Your task to perform on an android device: toggle data saver in the chrome app Image 0: 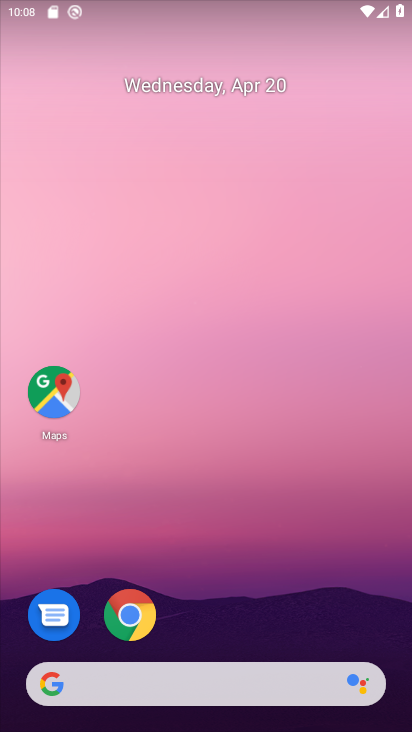
Step 0: drag from (345, 596) to (356, 164)
Your task to perform on an android device: toggle data saver in the chrome app Image 1: 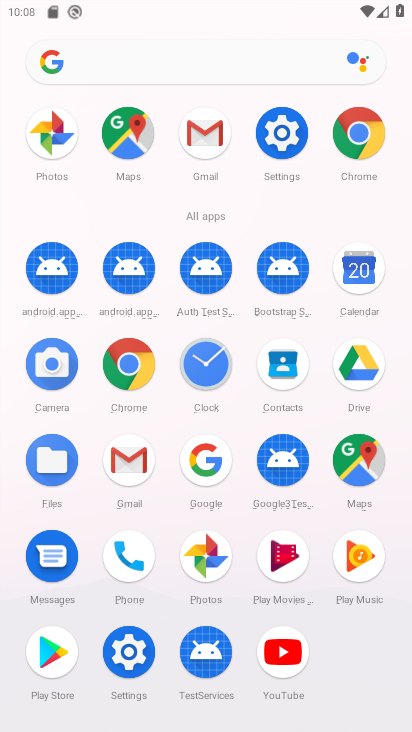
Step 1: click (127, 377)
Your task to perform on an android device: toggle data saver in the chrome app Image 2: 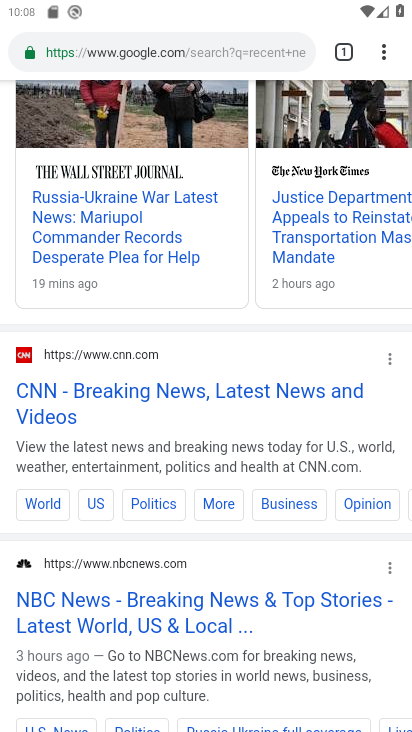
Step 2: drag from (385, 57) to (215, 579)
Your task to perform on an android device: toggle data saver in the chrome app Image 3: 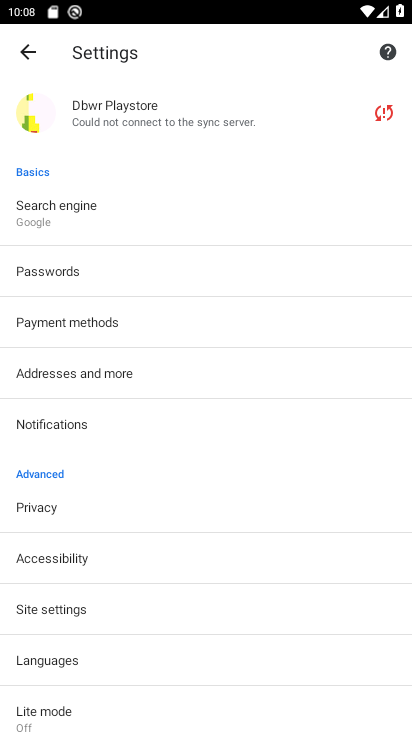
Step 3: drag from (216, 639) to (221, 266)
Your task to perform on an android device: toggle data saver in the chrome app Image 4: 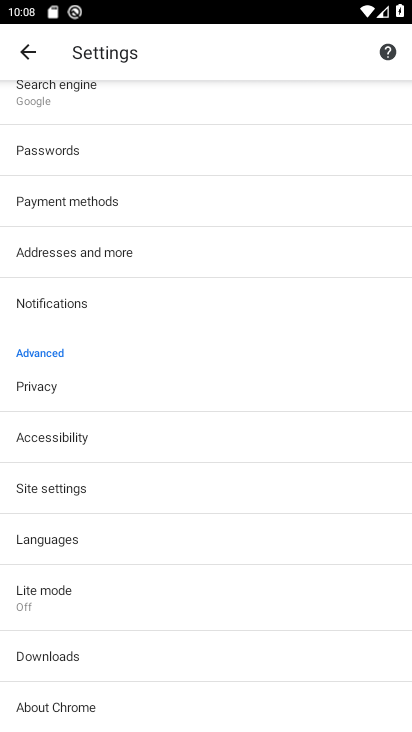
Step 4: click (58, 601)
Your task to perform on an android device: toggle data saver in the chrome app Image 5: 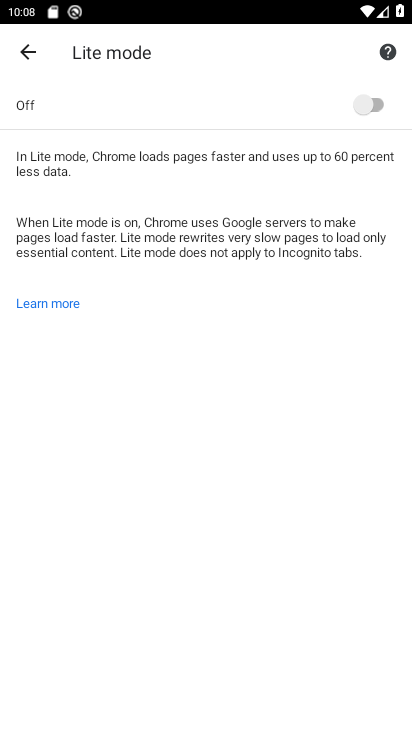
Step 5: click (378, 102)
Your task to perform on an android device: toggle data saver in the chrome app Image 6: 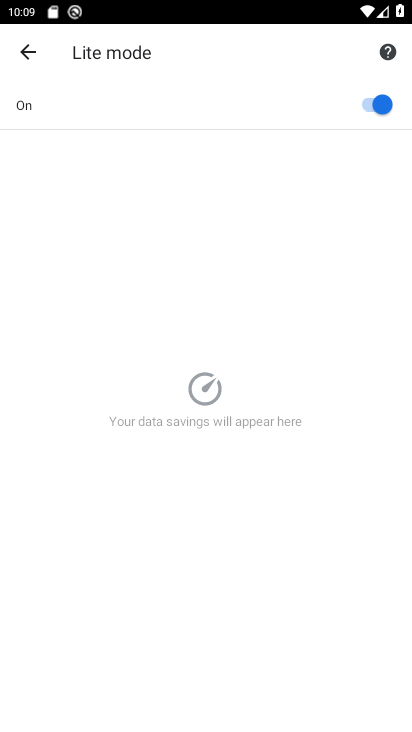
Step 6: task complete